Your task to perform on an android device: delete a single message in the gmail app Image 0: 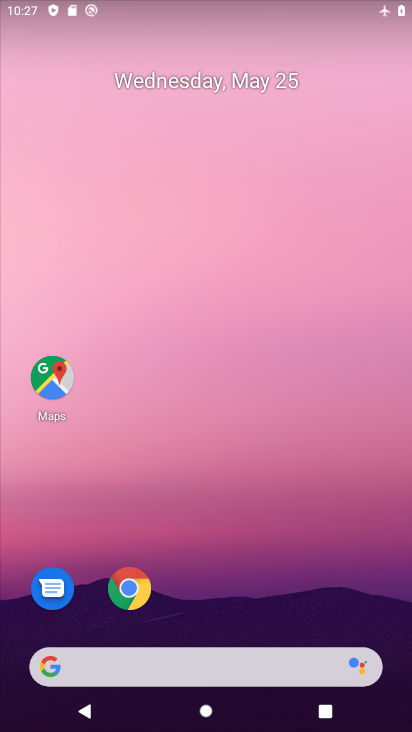
Step 0: drag from (223, 523) to (269, 51)
Your task to perform on an android device: delete a single message in the gmail app Image 1: 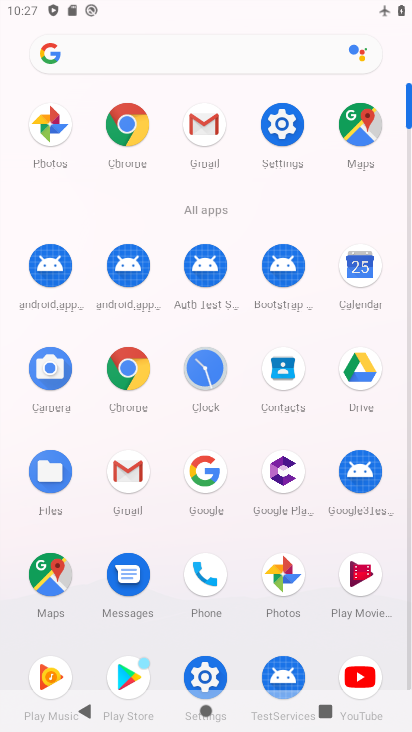
Step 1: click (141, 470)
Your task to perform on an android device: delete a single message in the gmail app Image 2: 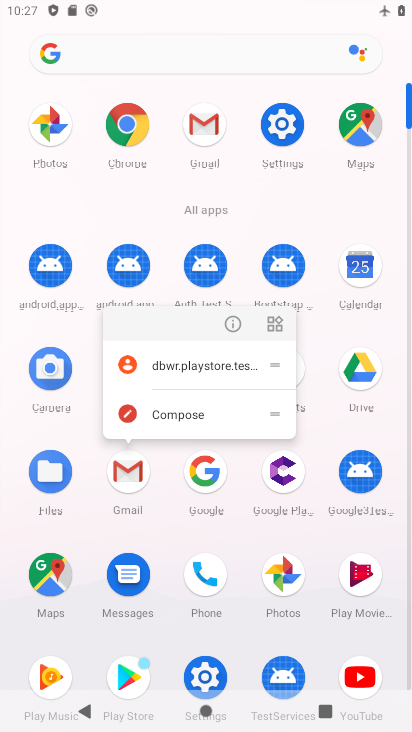
Step 2: click (140, 475)
Your task to perform on an android device: delete a single message in the gmail app Image 3: 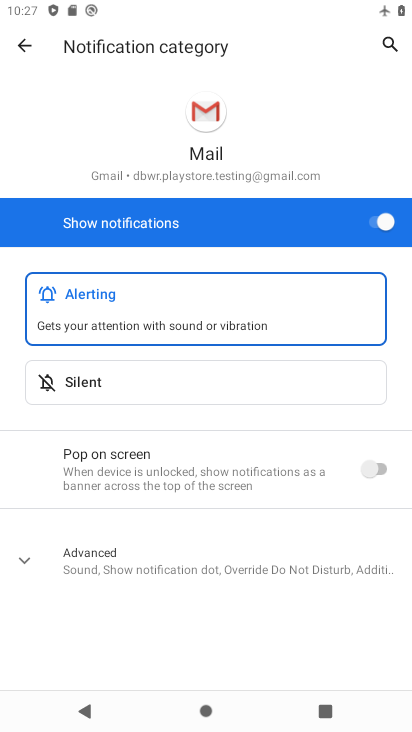
Step 3: click (32, 48)
Your task to perform on an android device: delete a single message in the gmail app Image 4: 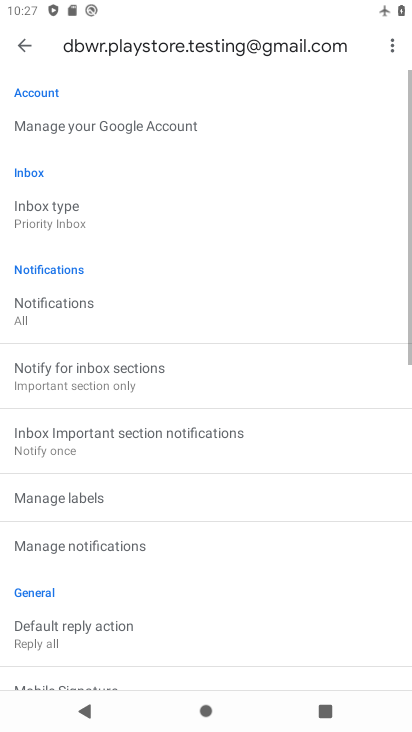
Step 4: click (32, 48)
Your task to perform on an android device: delete a single message in the gmail app Image 5: 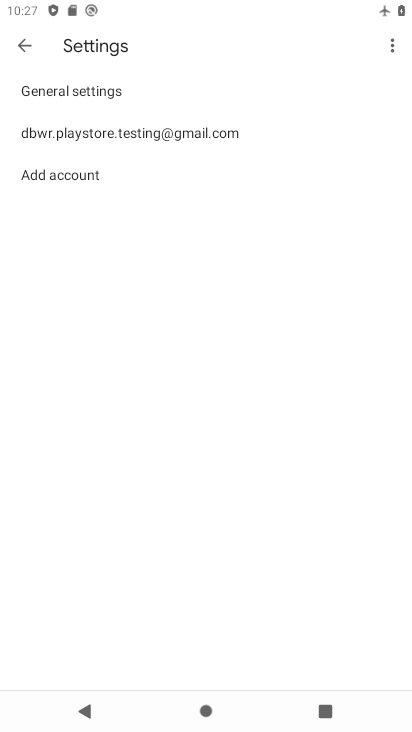
Step 5: click (19, 40)
Your task to perform on an android device: delete a single message in the gmail app Image 6: 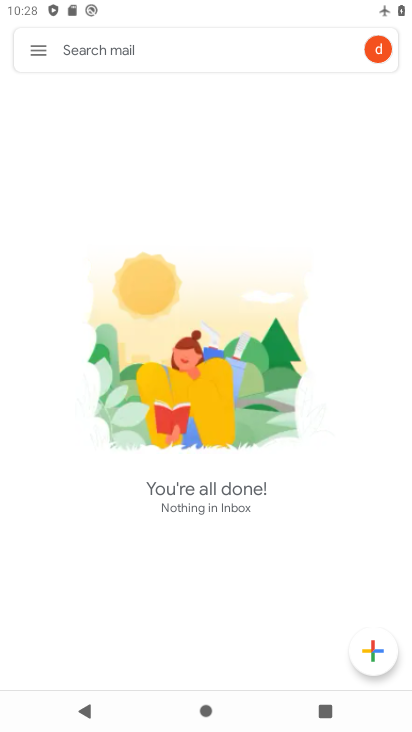
Step 6: click (41, 39)
Your task to perform on an android device: delete a single message in the gmail app Image 7: 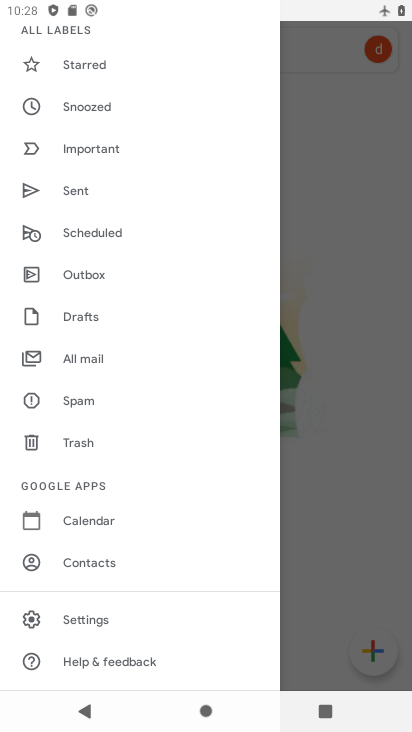
Step 7: click (83, 356)
Your task to perform on an android device: delete a single message in the gmail app Image 8: 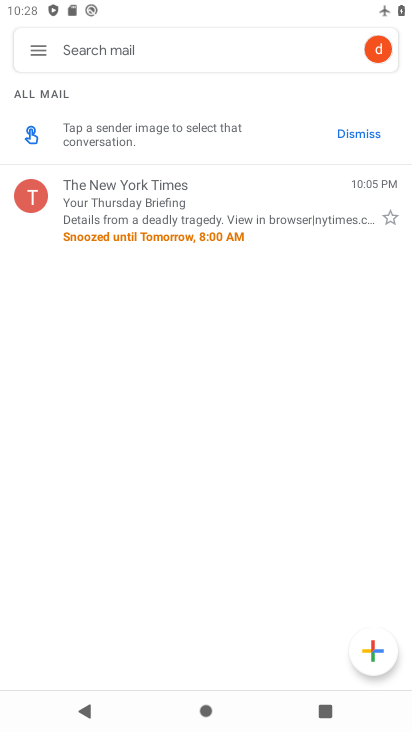
Step 8: task complete